Your task to perform on an android device: Search for a new desk on IKEA. Image 0: 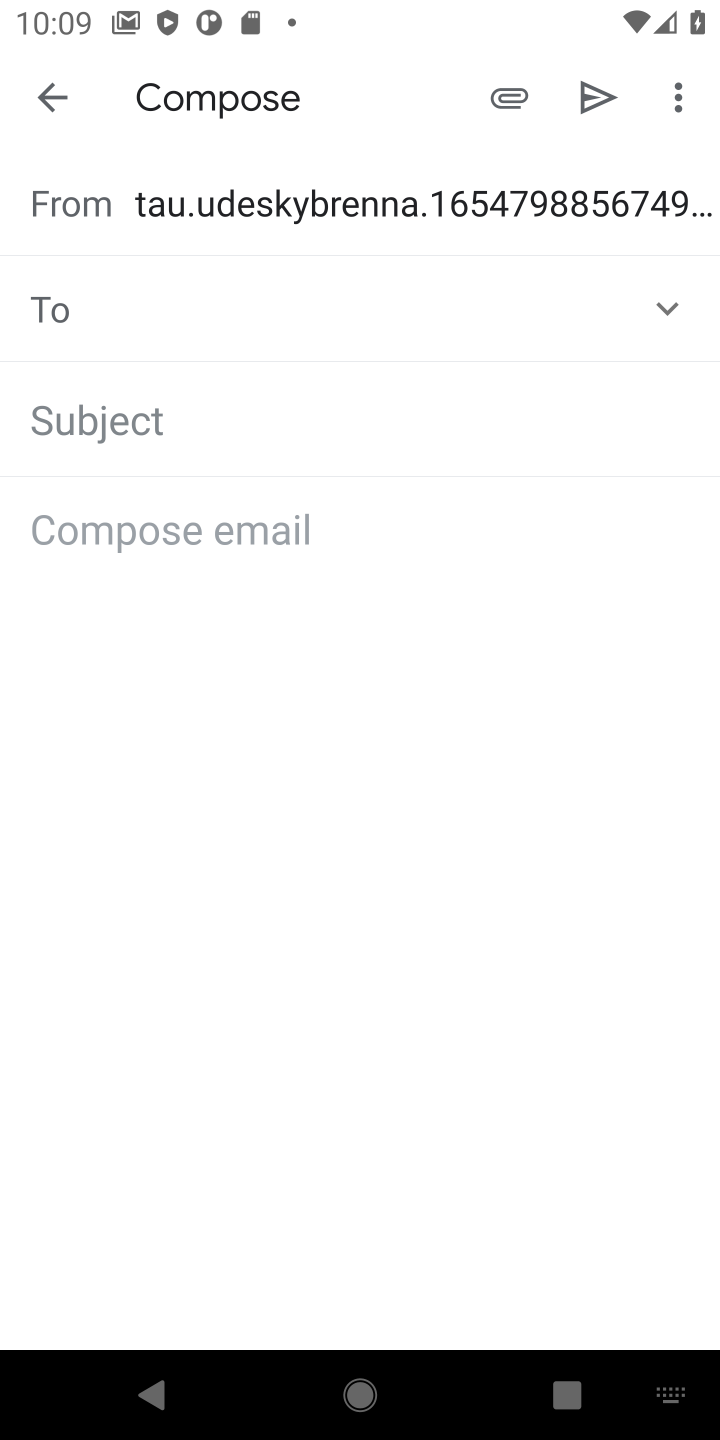
Step 0: press home button
Your task to perform on an android device: Search for a new desk on IKEA. Image 1: 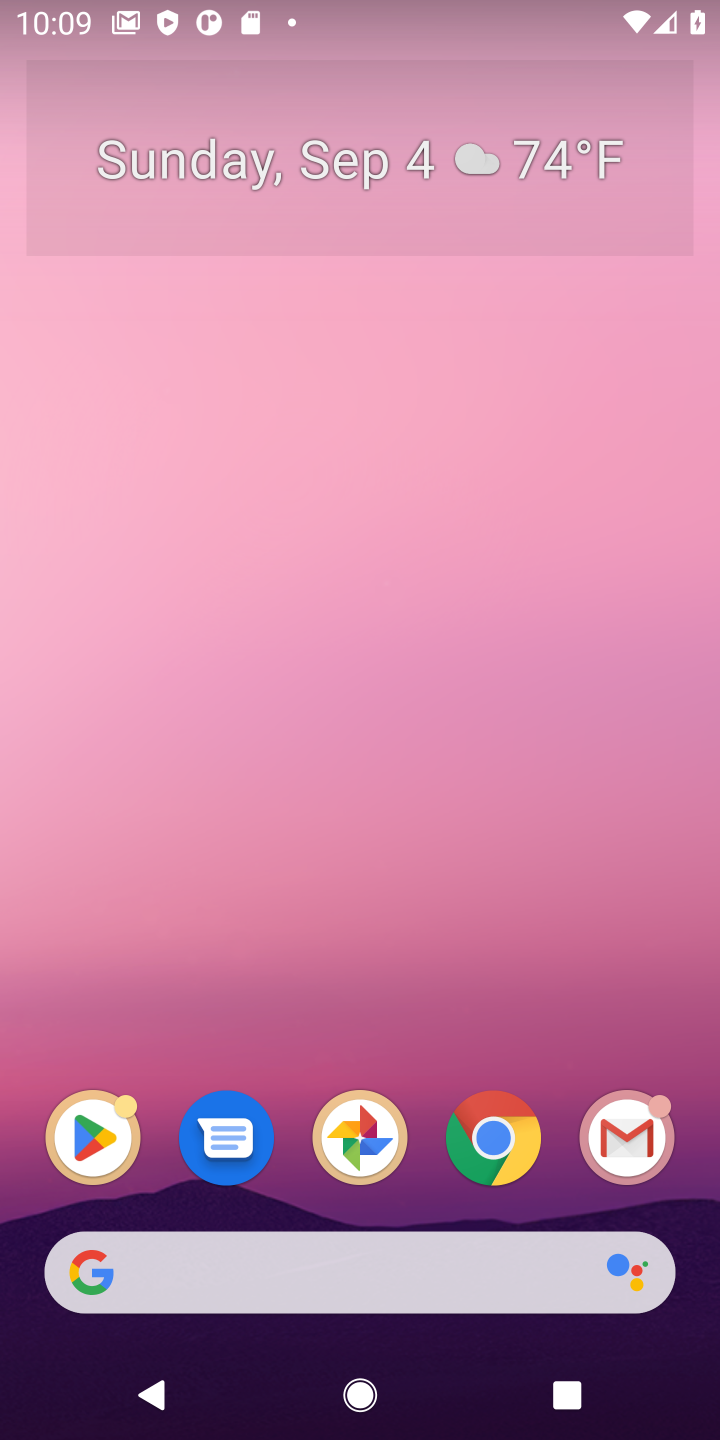
Step 1: click (515, 1144)
Your task to perform on an android device: Search for a new desk on IKEA. Image 2: 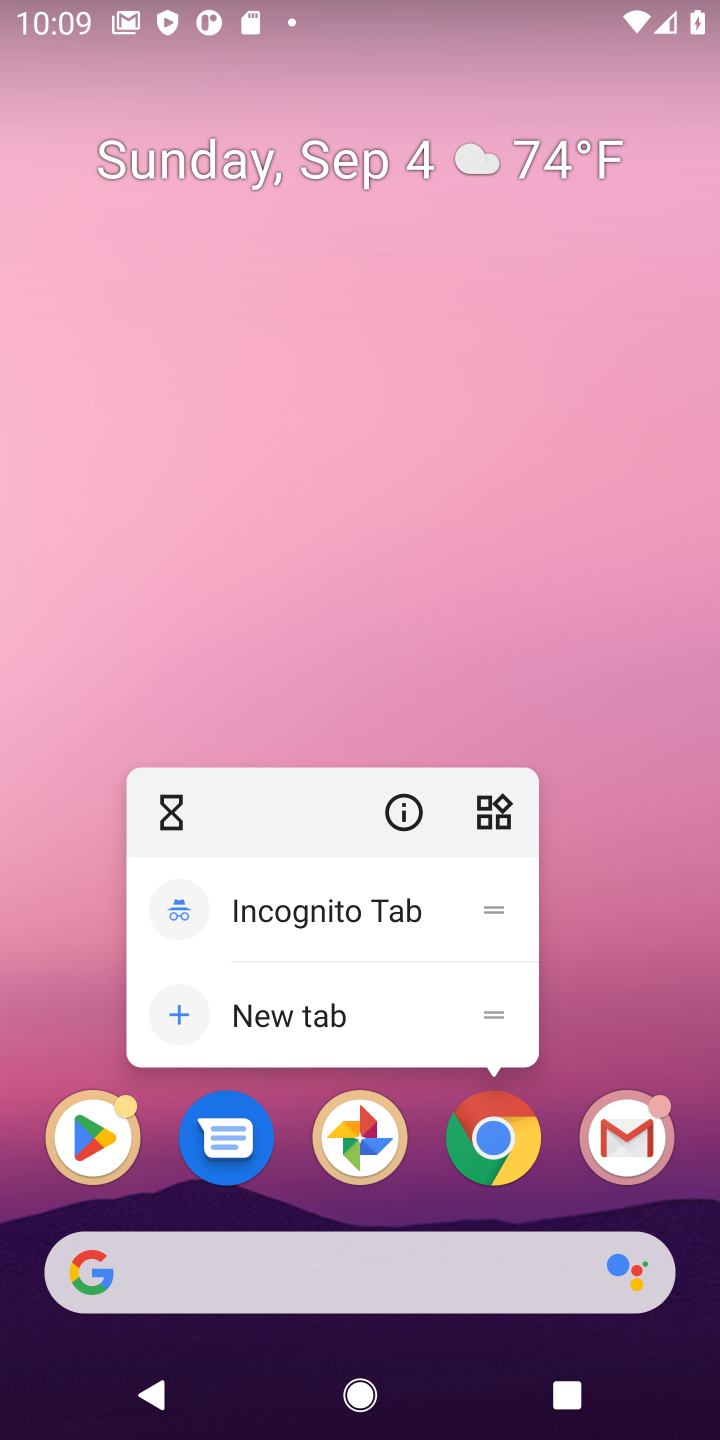
Step 2: click (515, 1143)
Your task to perform on an android device: Search for a new desk on IKEA. Image 3: 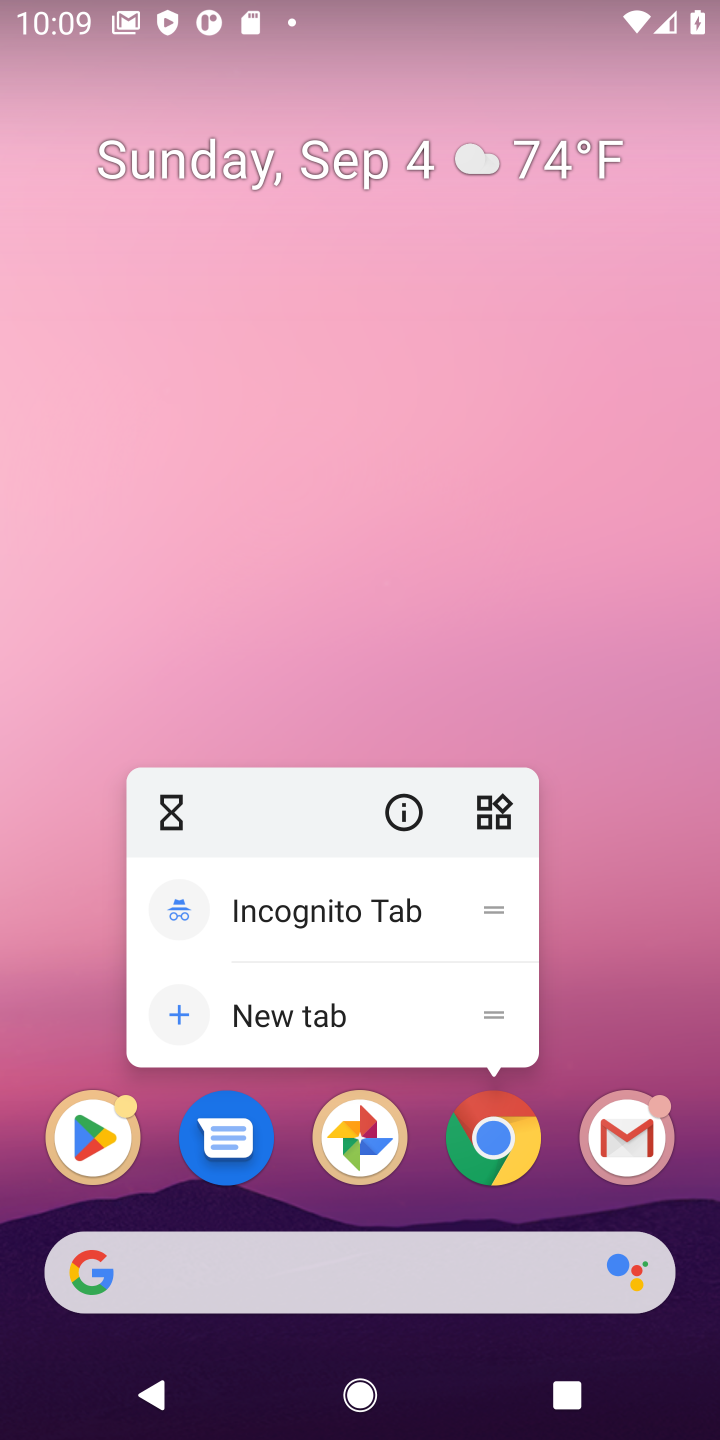
Step 3: click (484, 1153)
Your task to perform on an android device: Search for a new desk on IKEA. Image 4: 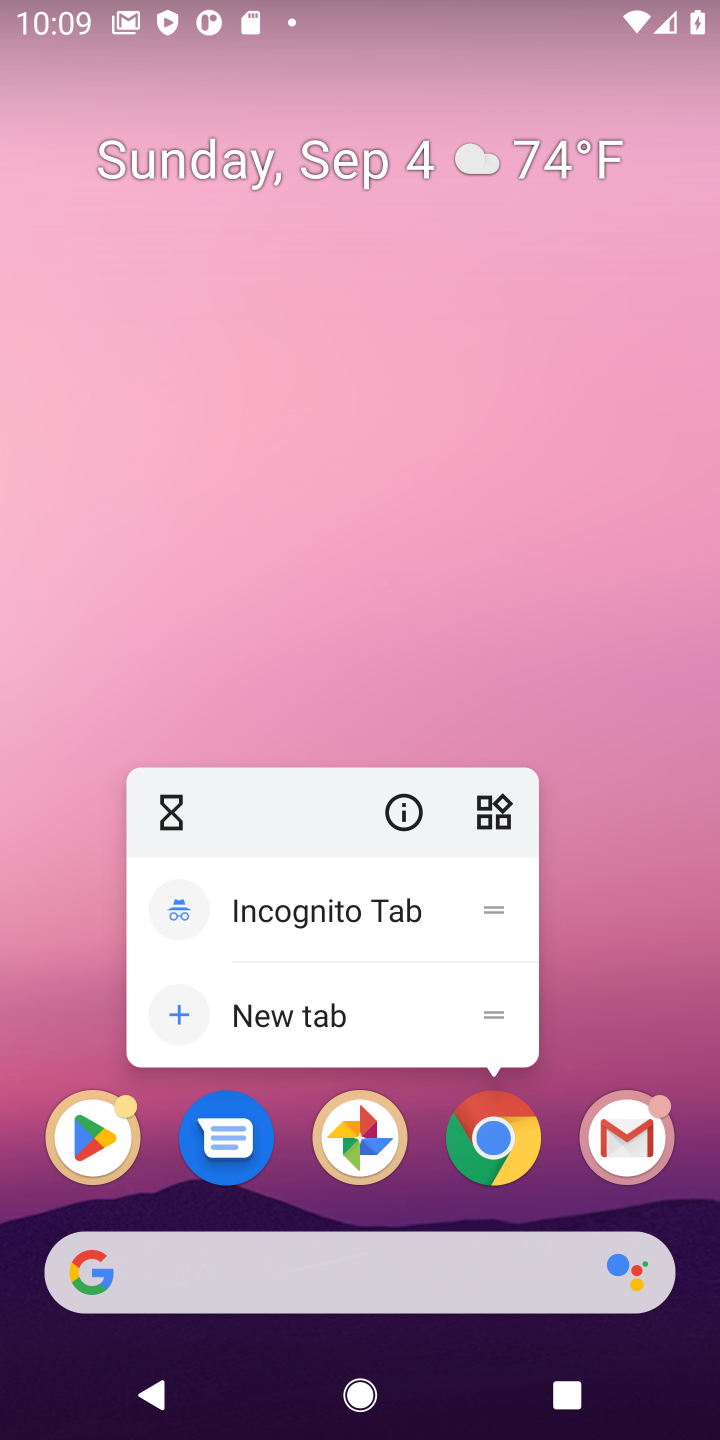
Step 4: click (481, 1159)
Your task to perform on an android device: Search for a new desk on IKEA. Image 5: 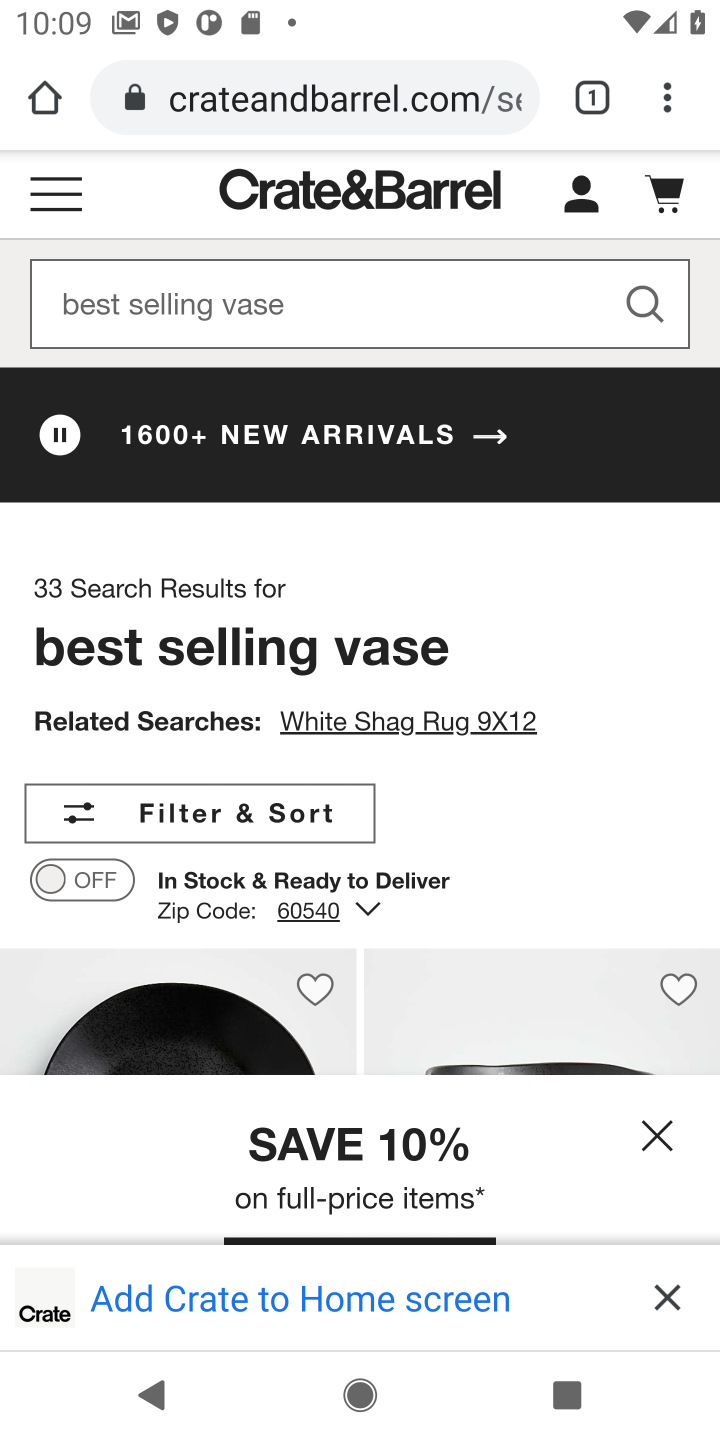
Step 5: click (356, 88)
Your task to perform on an android device: Search for a new desk on IKEA. Image 6: 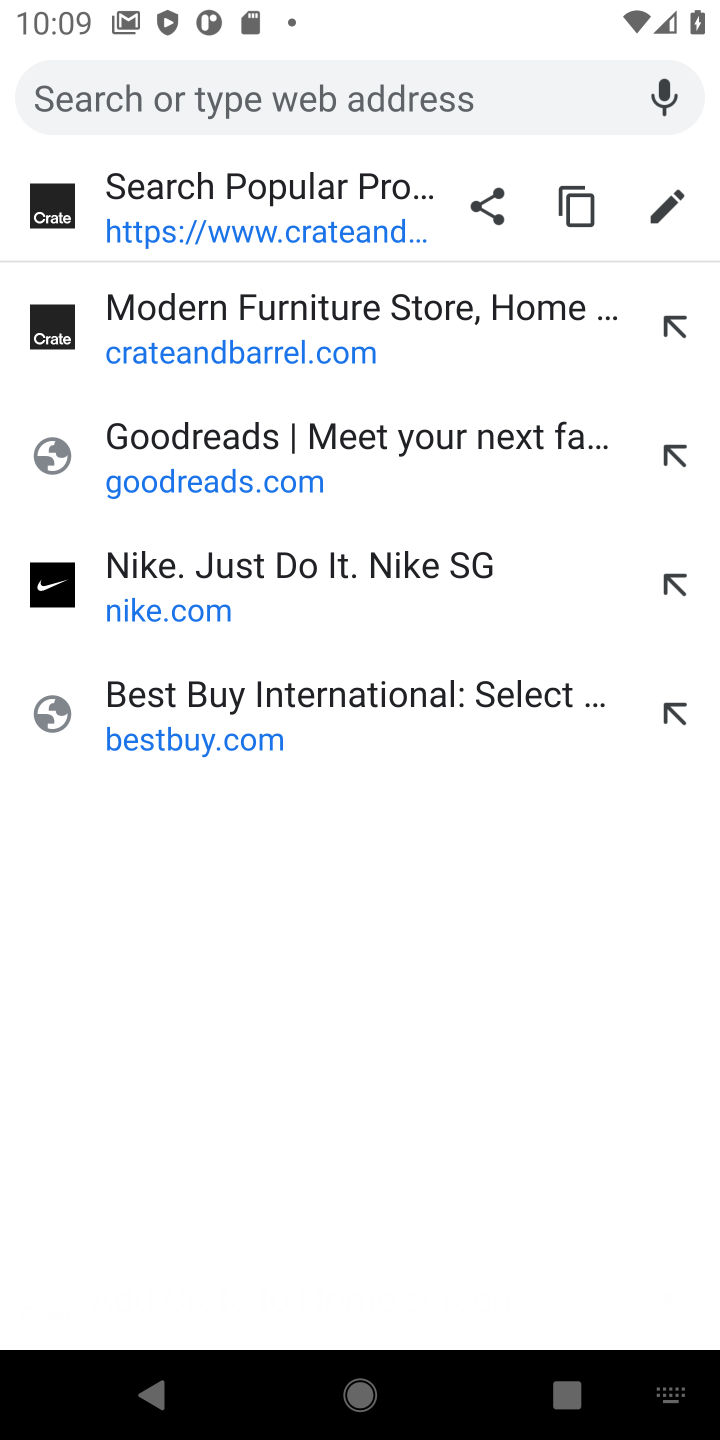
Step 6: type "ikea"
Your task to perform on an android device: Search for a new desk on IKEA. Image 7: 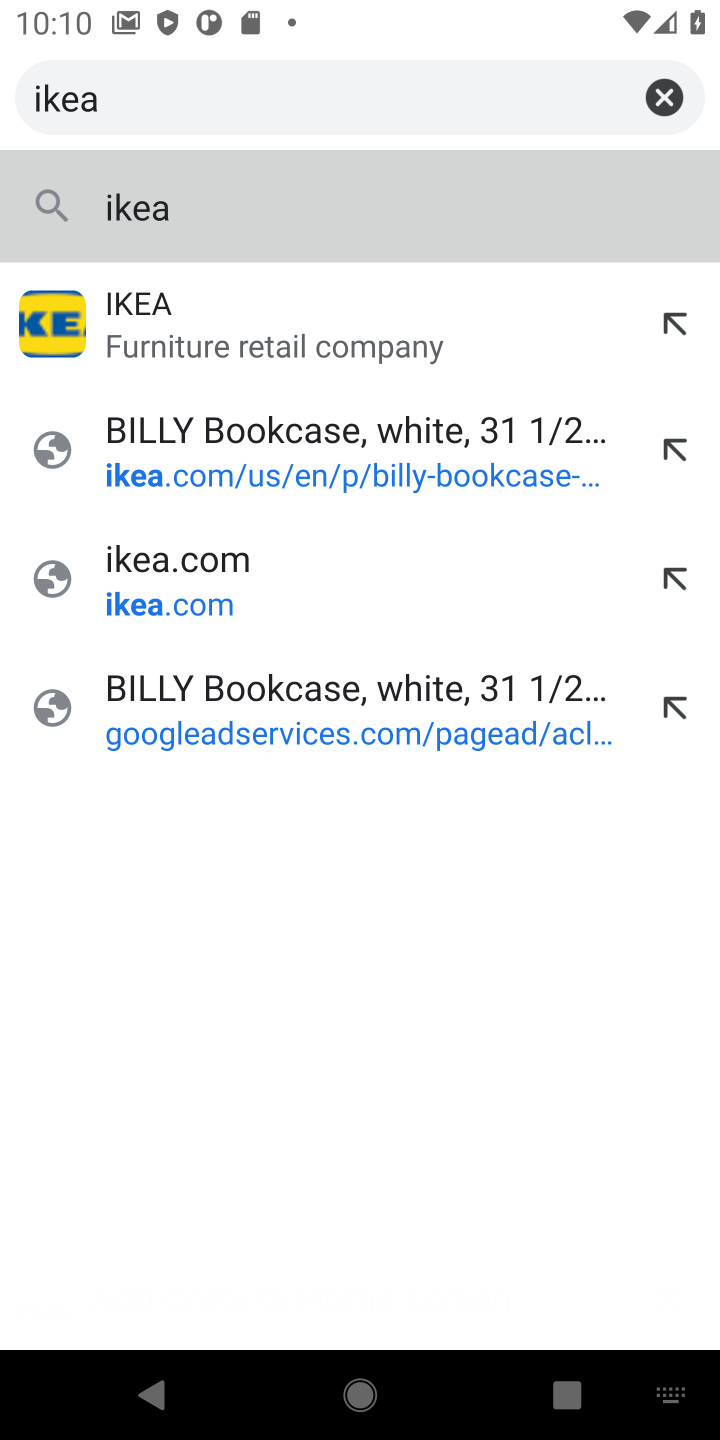
Step 7: click (292, 601)
Your task to perform on an android device: Search for a new desk on IKEA. Image 8: 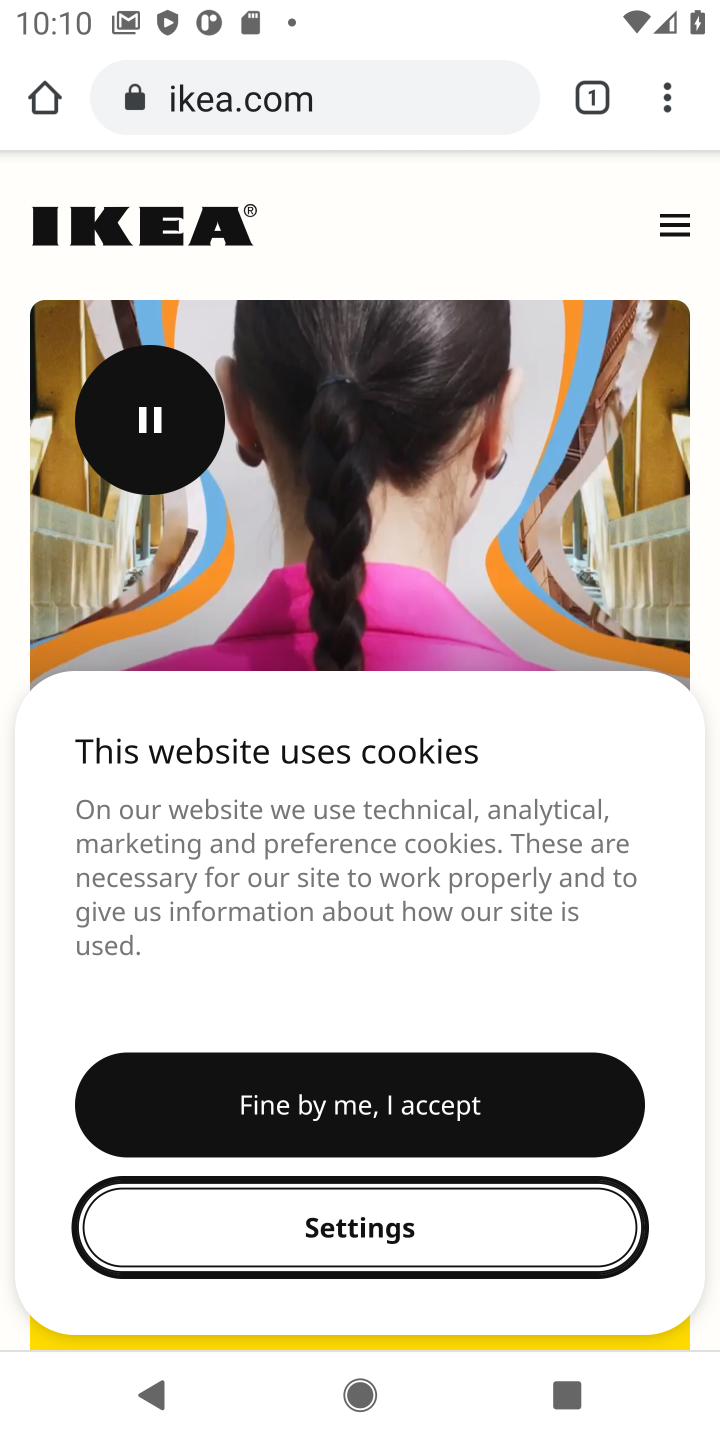
Step 8: click (402, 1130)
Your task to perform on an android device: Search for a new desk on IKEA. Image 9: 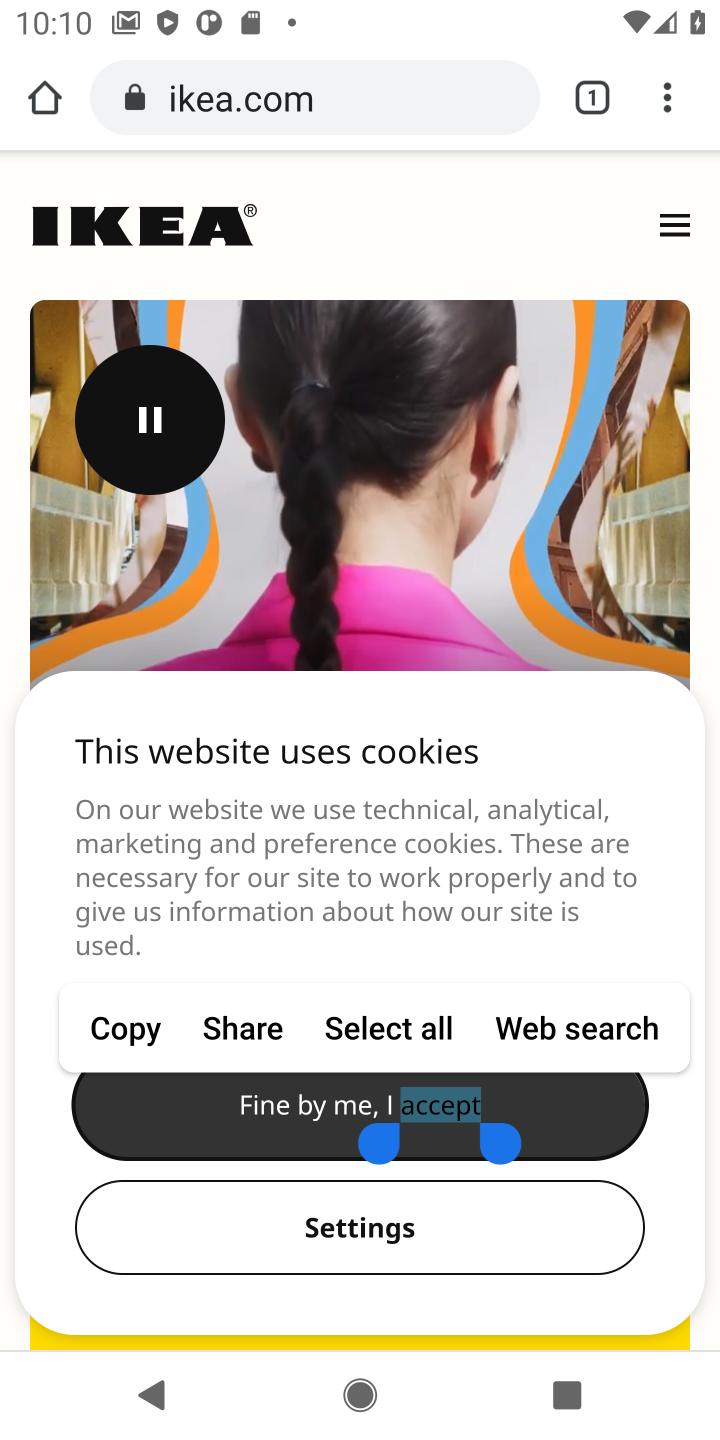
Step 9: click (320, 1115)
Your task to perform on an android device: Search for a new desk on IKEA. Image 10: 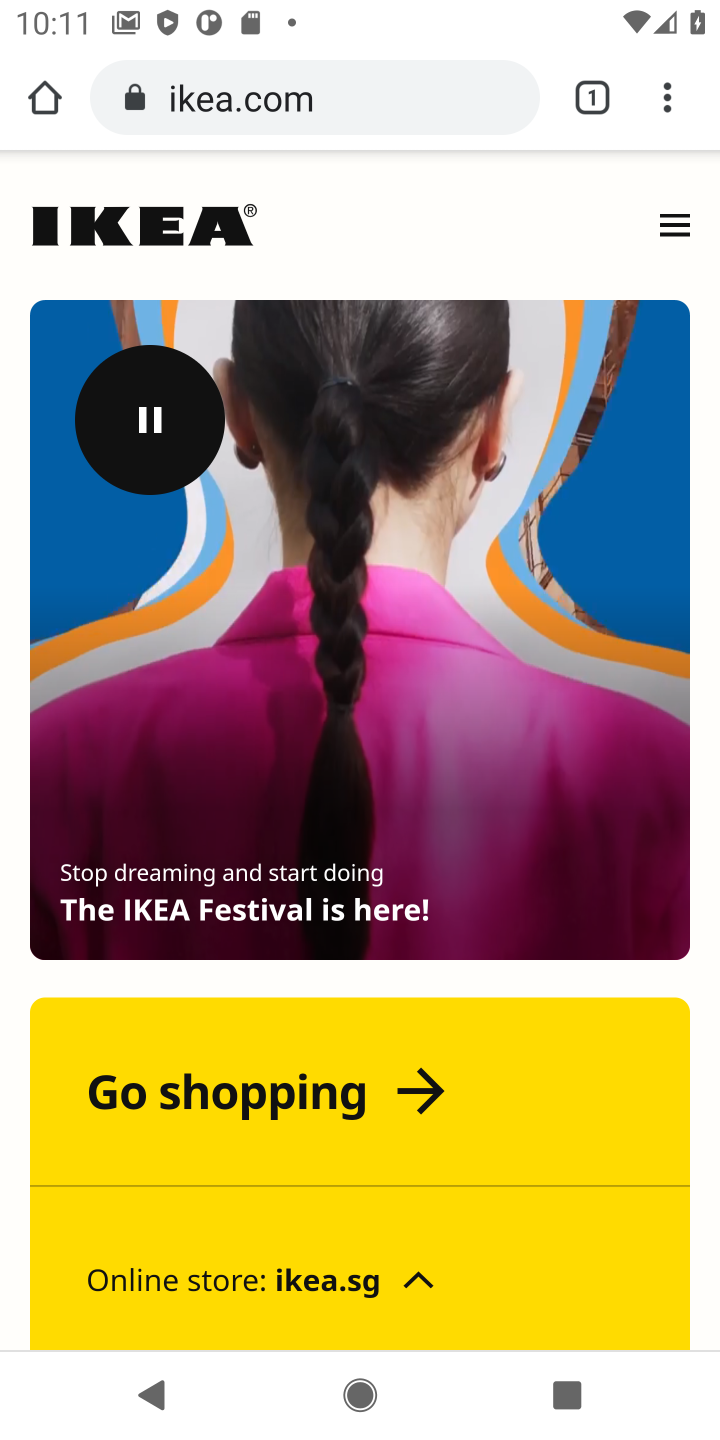
Step 10: click (391, 1100)
Your task to perform on an android device: Search for a new desk on IKEA. Image 11: 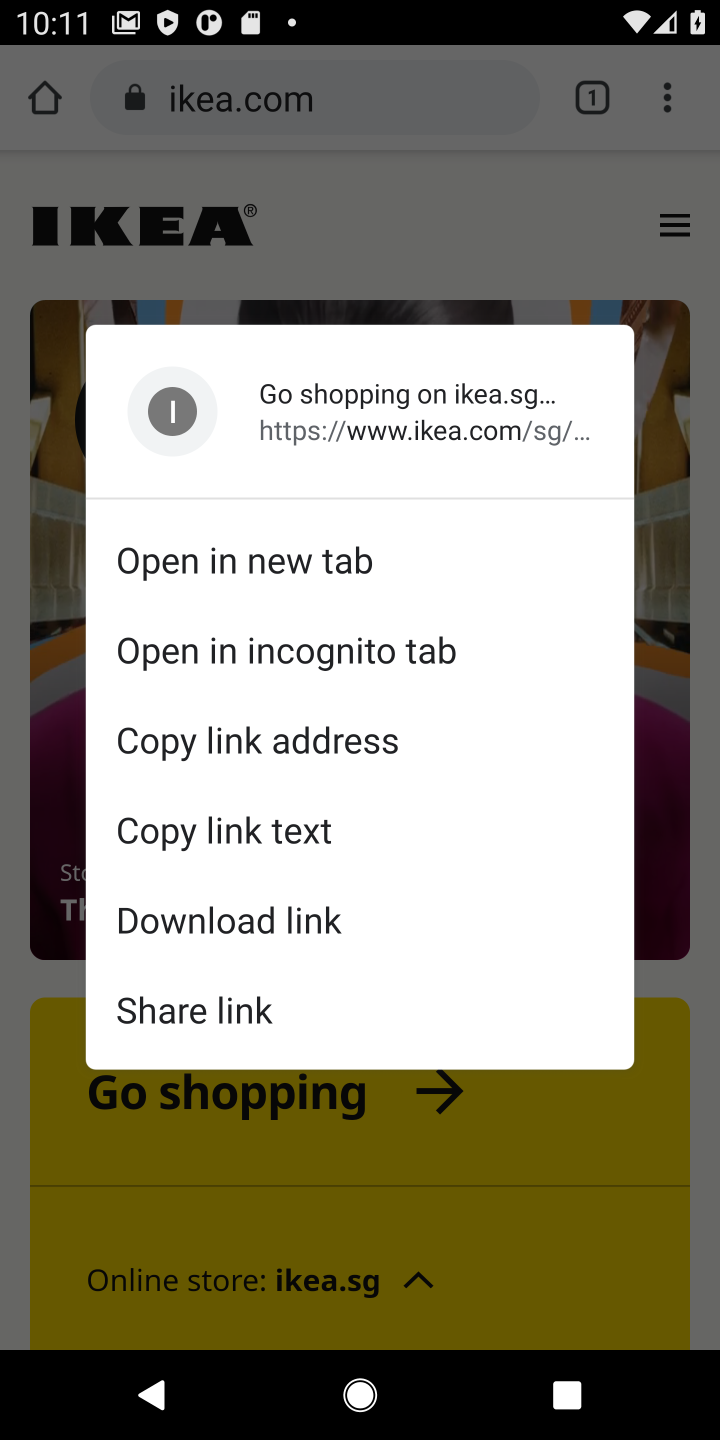
Step 11: click (493, 1222)
Your task to perform on an android device: Search for a new desk on IKEA. Image 12: 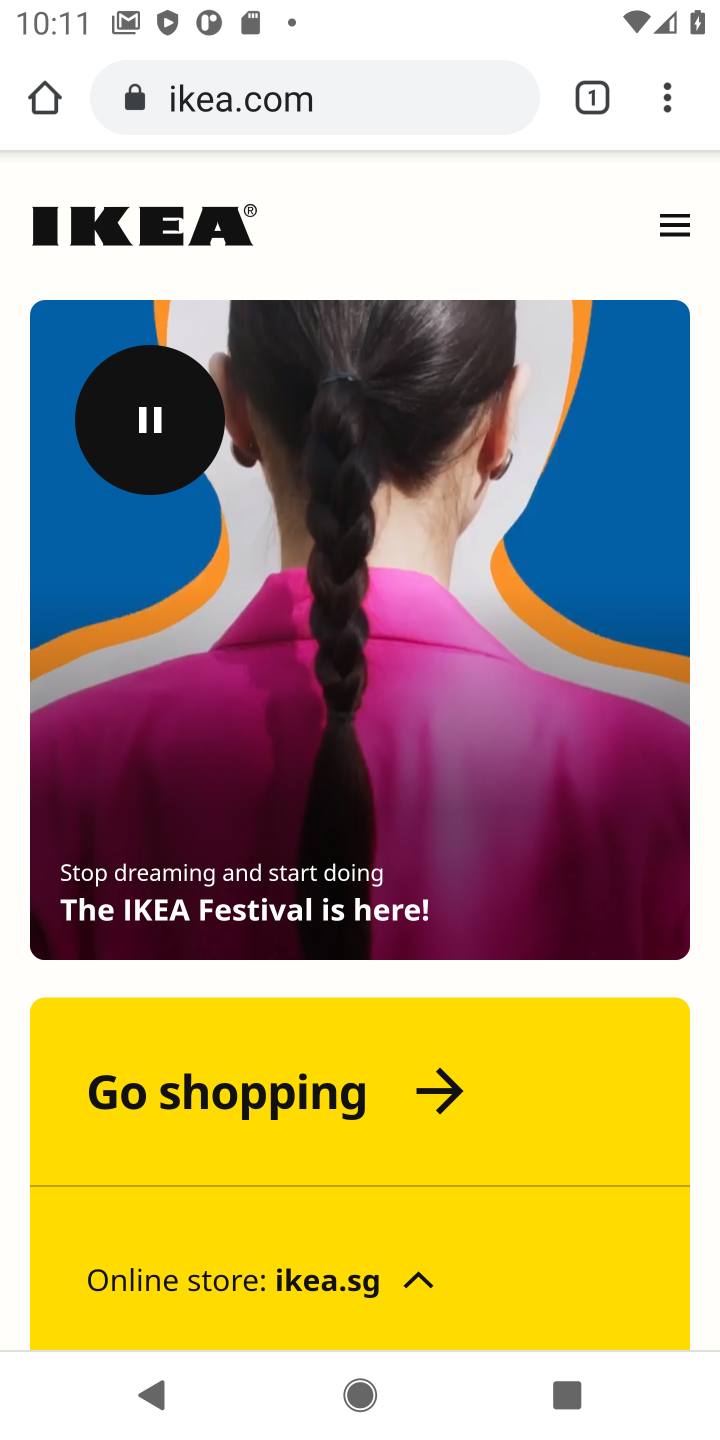
Step 12: click (413, 1105)
Your task to perform on an android device: Search for a new desk on IKEA. Image 13: 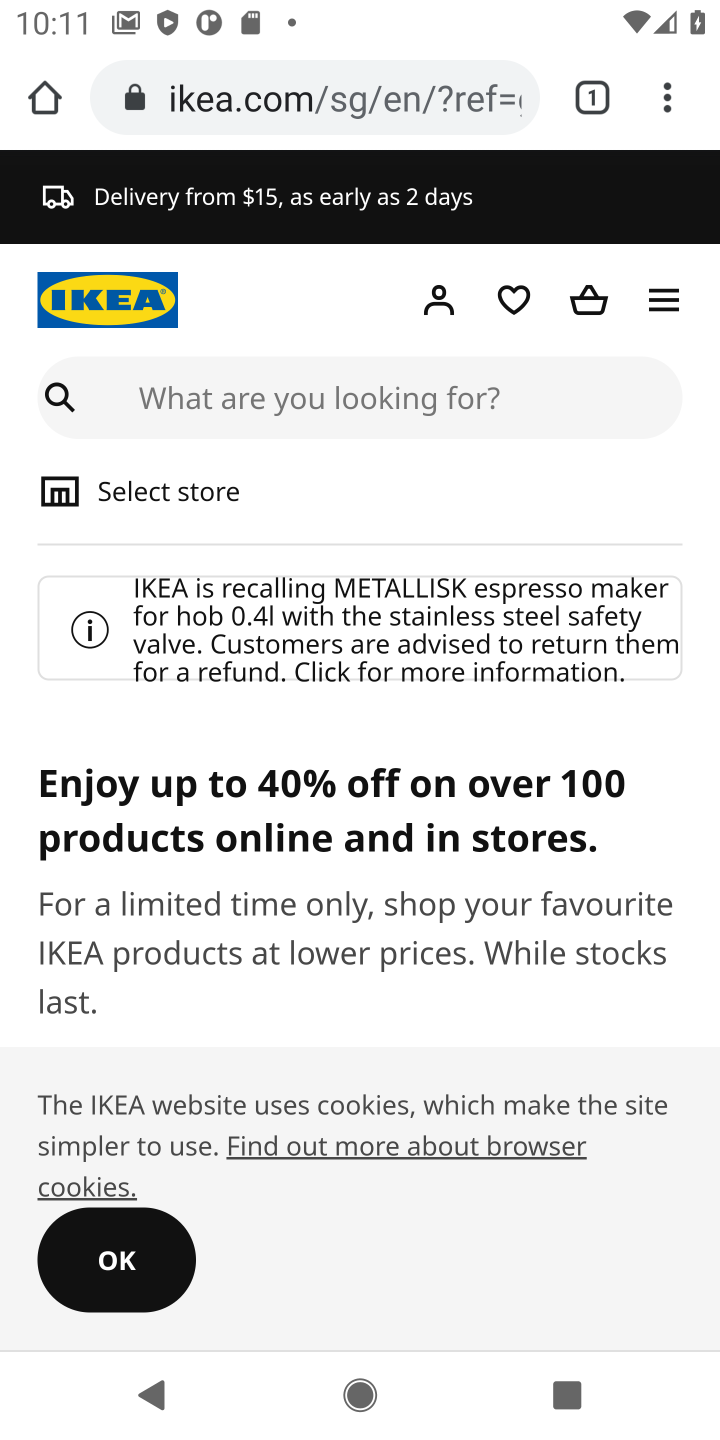
Step 13: click (402, 392)
Your task to perform on an android device: Search for a new desk on IKEA. Image 14: 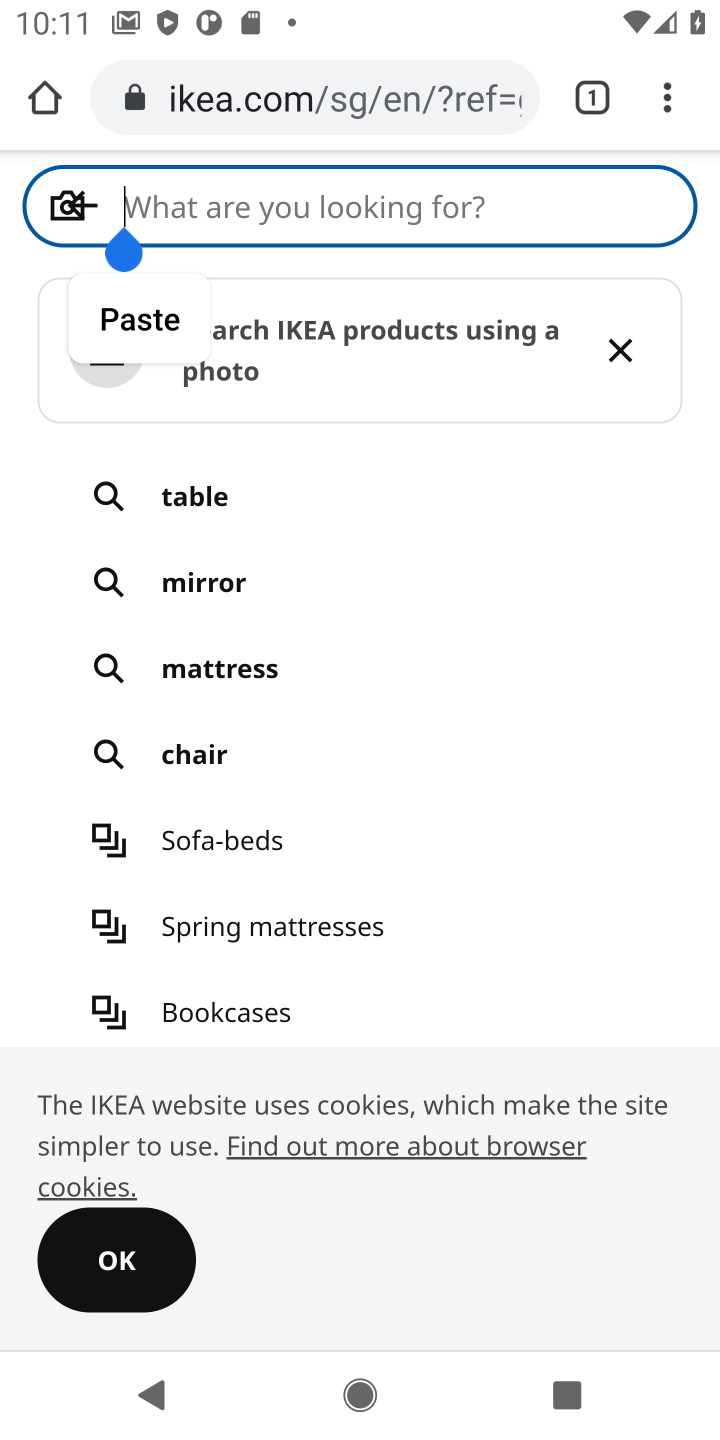
Step 14: type "new desk"
Your task to perform on an android device: Search for a new desk on IKEA. Image 15: 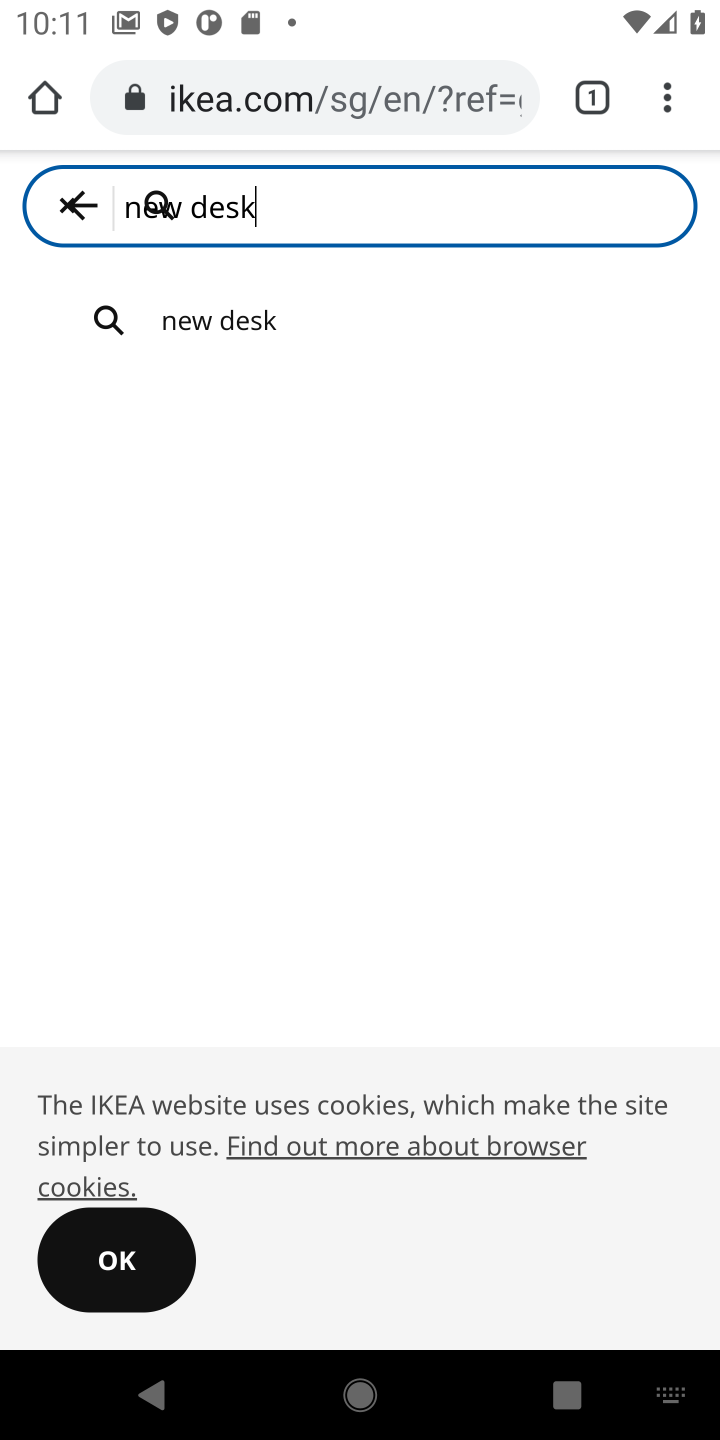
Step 15: click (429, 345)
Your task to perform on an android device: Search for a new desk on IKEA. Image 16: 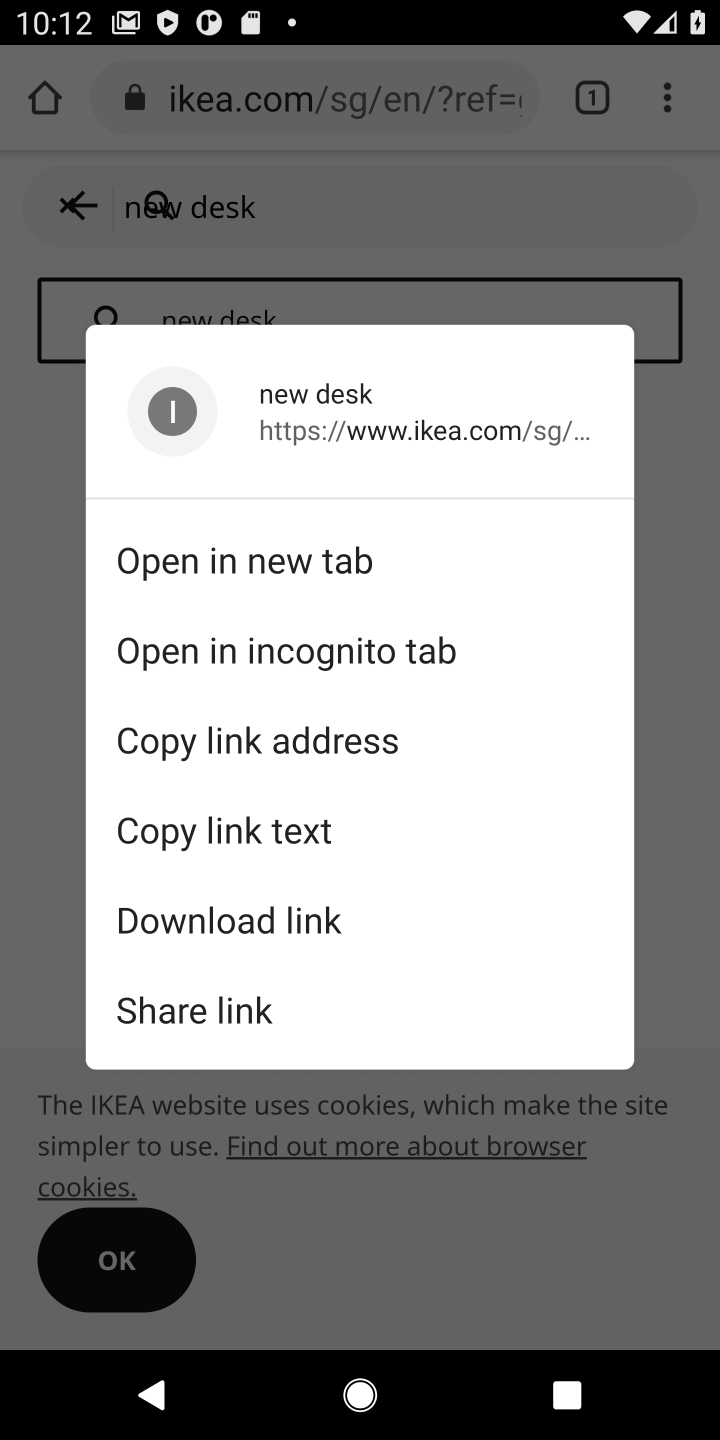
Step 16: click (353, 1197)
Your task to perform on an android device: Search for a new desk on IKEA. Image 17: 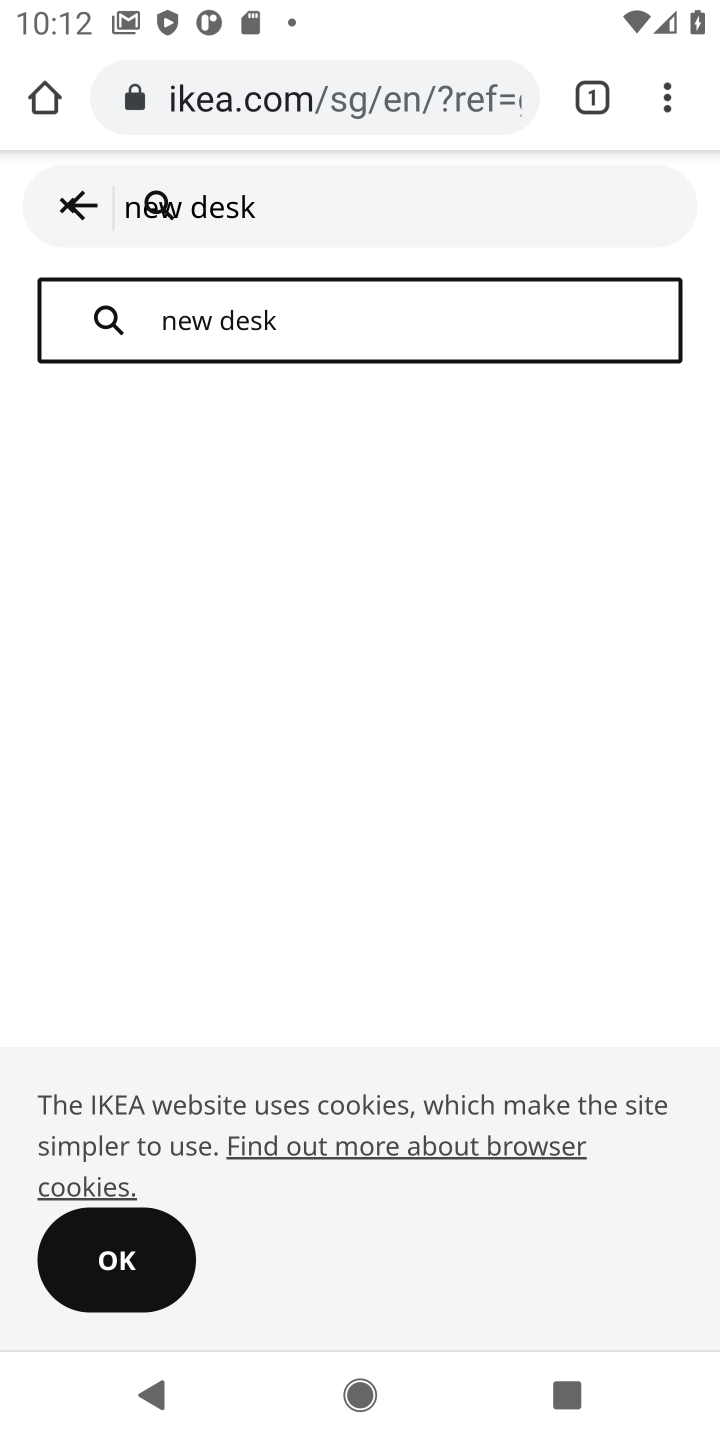
Step 17: click (141, 1283)
Your task to perform on an android device: Search for a new desk on IKEA. Image 18: 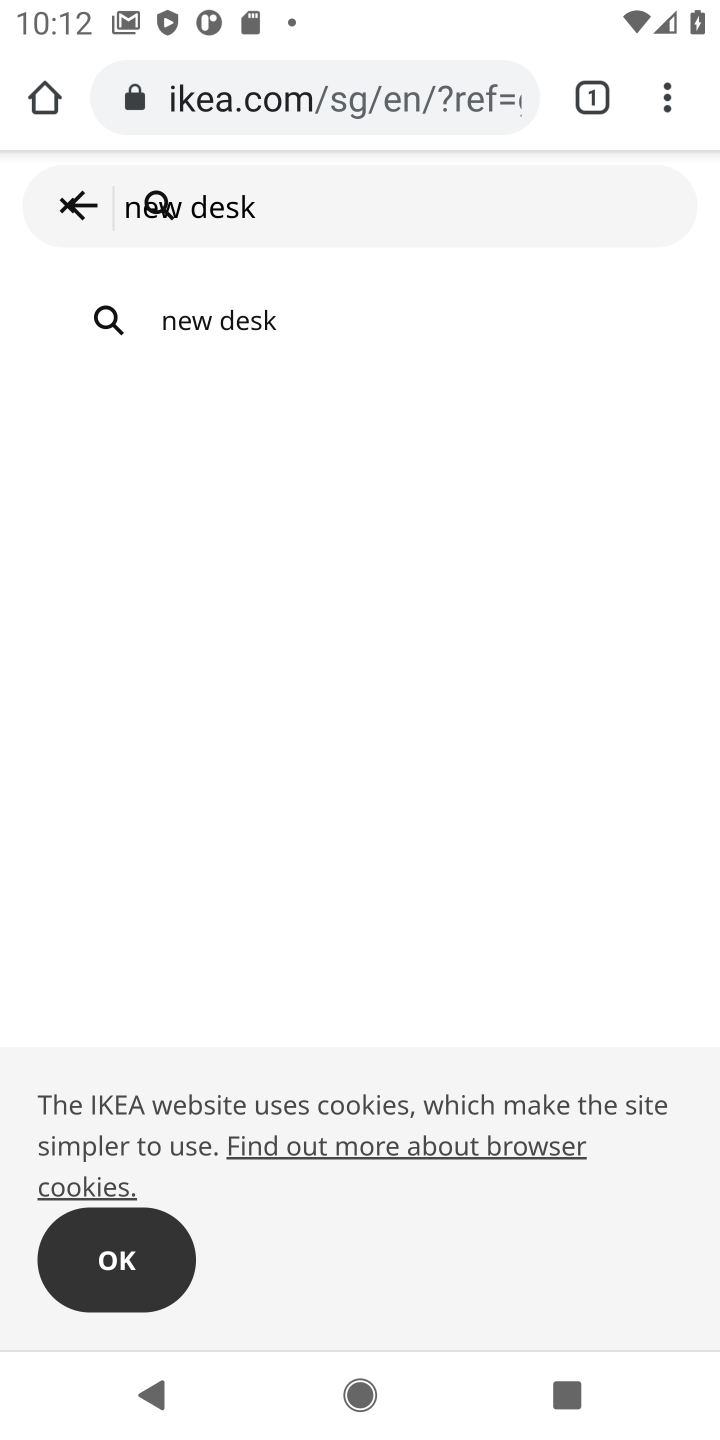
Step 18: click (226, 344)
Your task to perform on an android device: Search for a new desk on IKEA. Image 19: 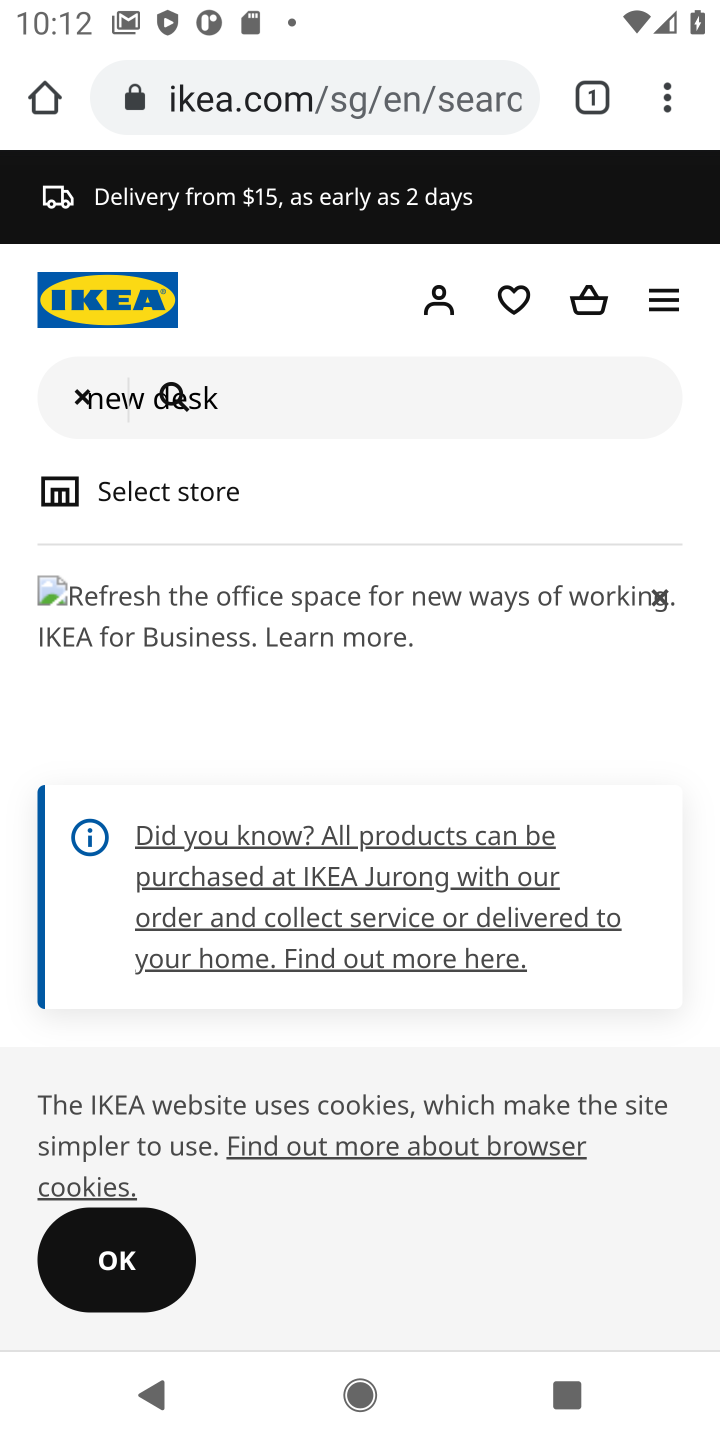
Step 19: task complete